Your task to perform on an android device: refresh tabs in the chrome app Image 0: 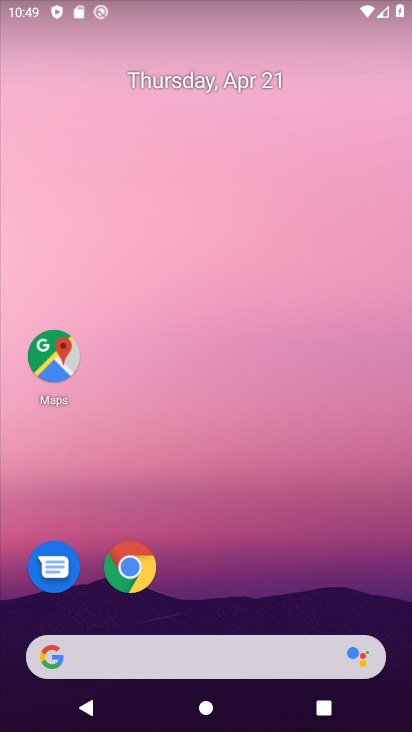
Step 0: click (140, 564)
Your task to perform on an android device: refresh tabs in the chrome app Image 1: 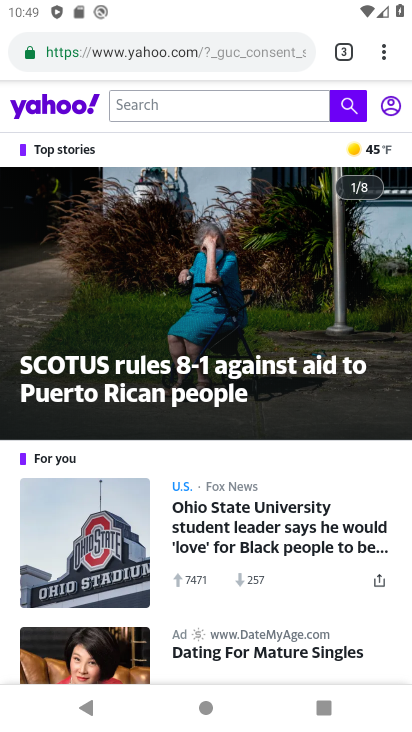
Step 1: click (390, 55)
Your task to perform on an android device: refresh tabs in the chrome app Image 2: 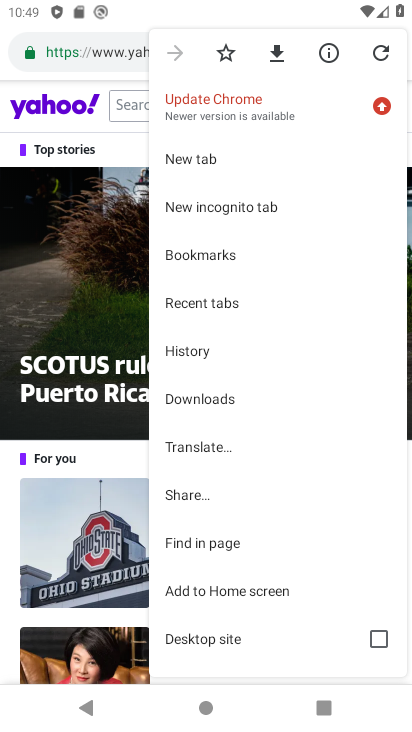
Step 2: click (383, 56)
Your task to perform on an android device: refresh tabs in the chrome app Image 3: 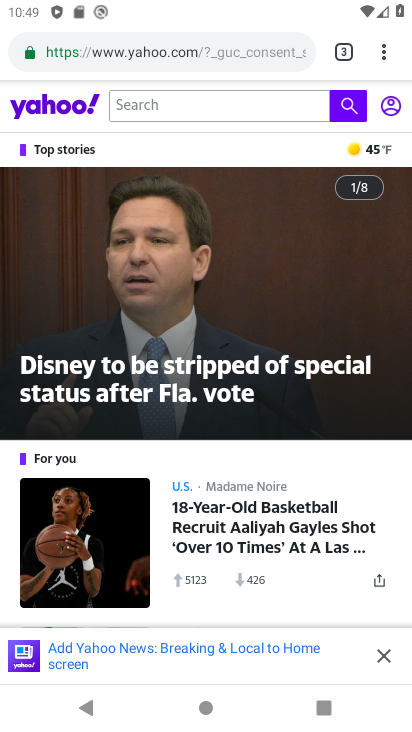
Step 3: task complete